Your task to perform on an android device: Open Yahoo.com Image 0: 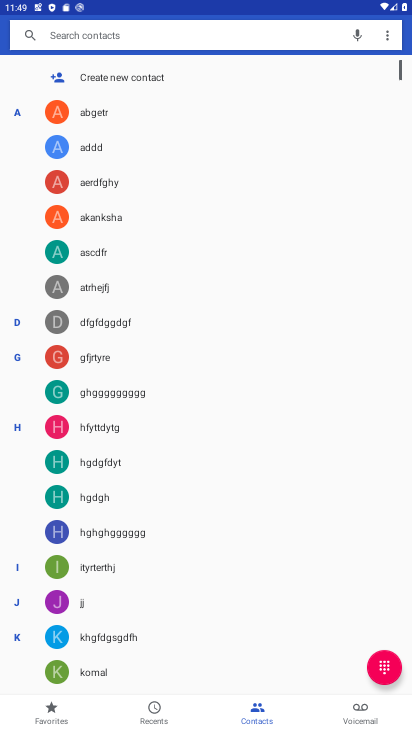
Step 0: press home button
Your task to perform on an android device: Open Yahoo.com Image 1: 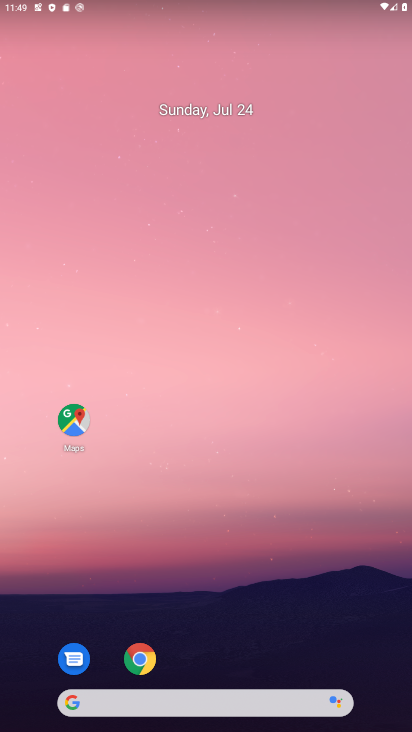
Step 1: click (156, 695)
Your task to perform on an android device: Open Yahoo.com Image 2: 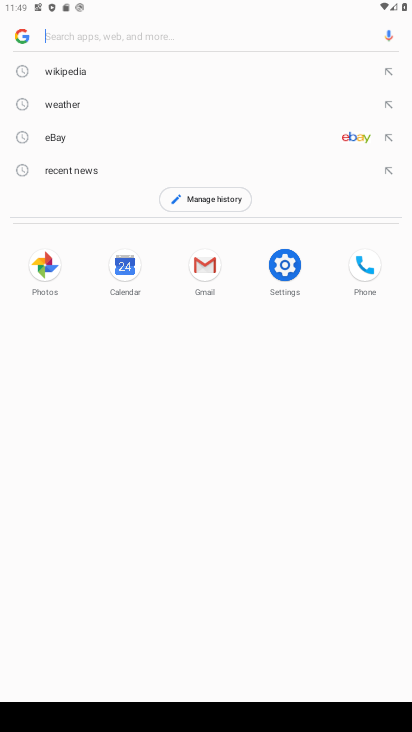
Step 2: type "Yahoo.com"
Your task to perform on an android device: Open Yahoo.com Image 3: 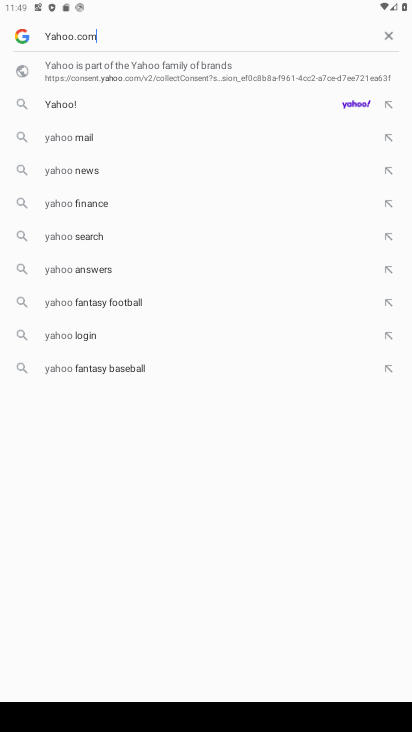
Step 3: type ""
Your task to perform on an android device: Open Yahoo.com Image 4: 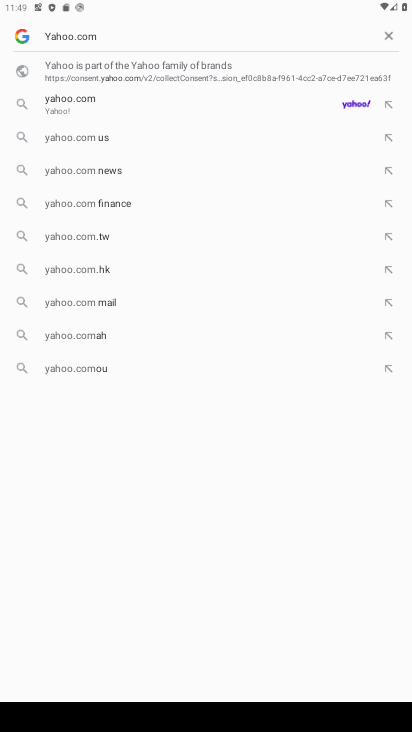
Step 4: click (61, 106)
Your task to perform on an android device: Open Yahoo.com Image 5: 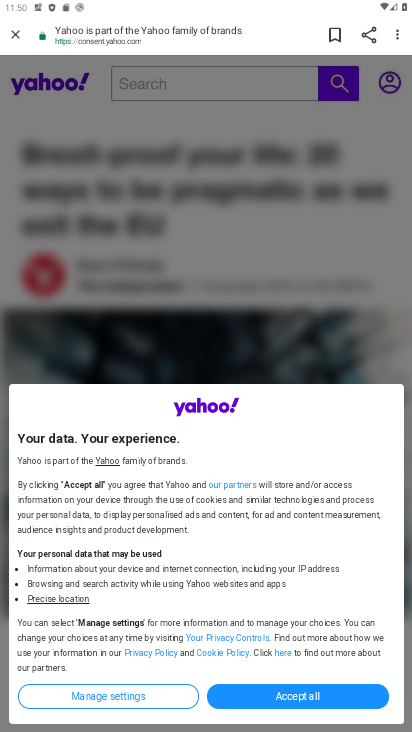
Step 5: task complete